Your task to perform on an android device: change the clock style Image 0: 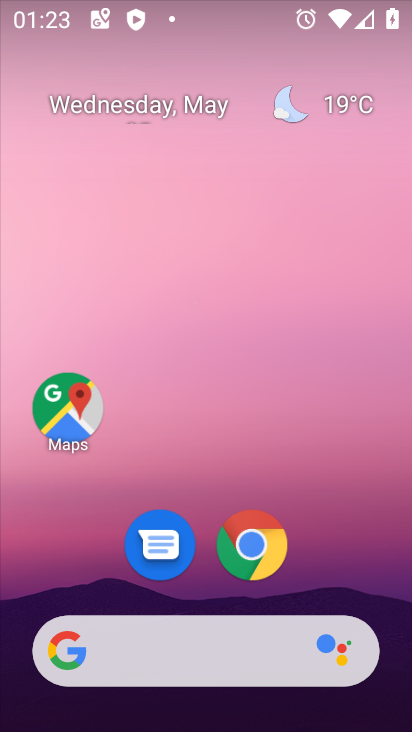
Step 0: drag from (363, 541) to (185, 54)
Your task to perform on an android device: change the clock style Image 1: 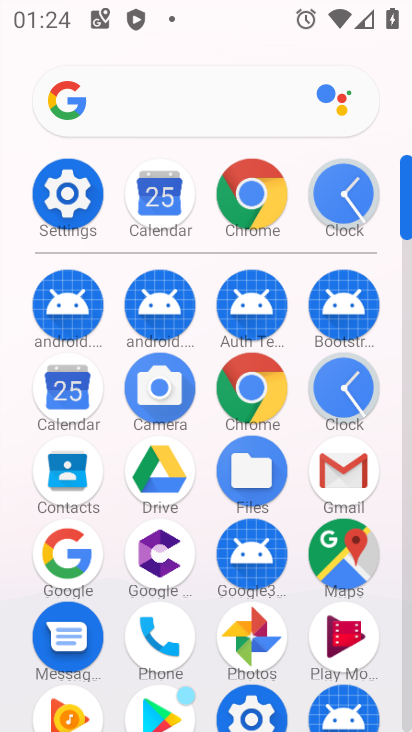
Step 1: click (345, 398)
Your task to perform on an android device: change the clock style Image 2: 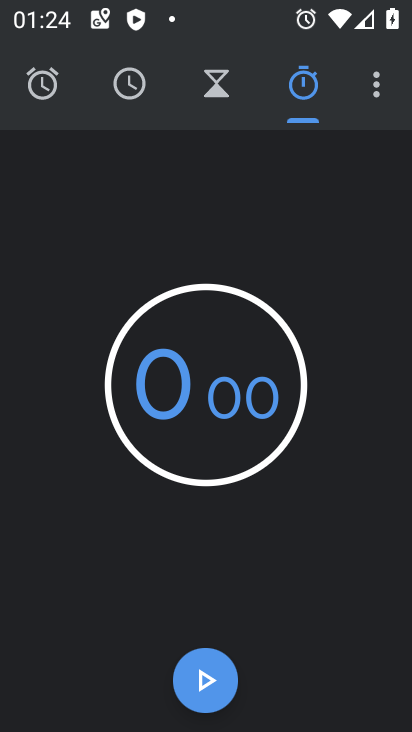
Step 2: click (373, 94)
Your task to perform on an android device: change the clock style Image 3: 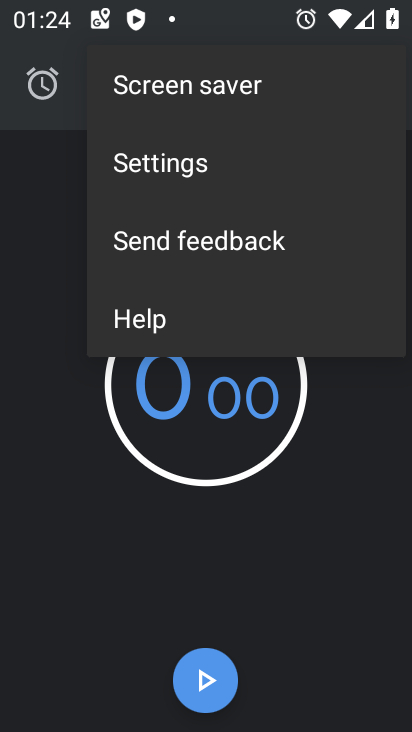
Step 3: click (150, 164)
Your task to perform on an android device: change the clock style Image 4: 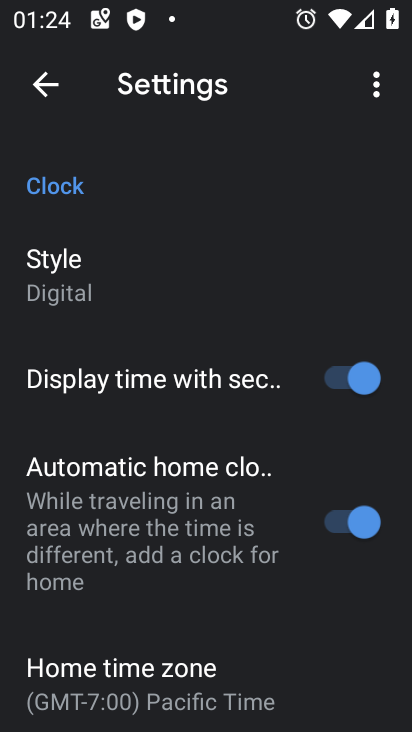
Step 4: click (63, 276)
Your task to perform on an android device: change the clock style Image 5: 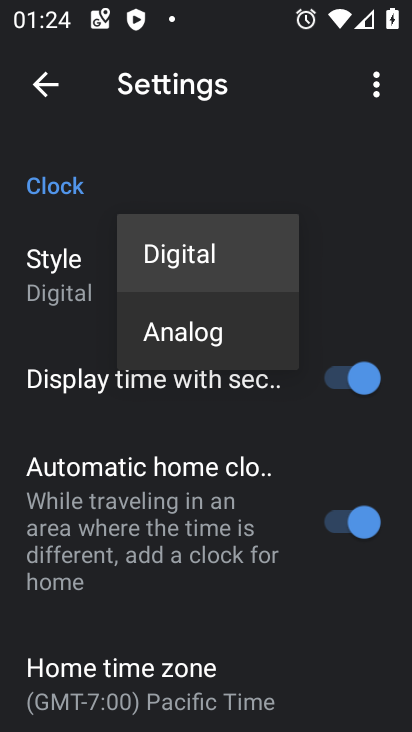
Step 5: click (169, 328)
Your task to perform on an android device: change the clock style Image 6: 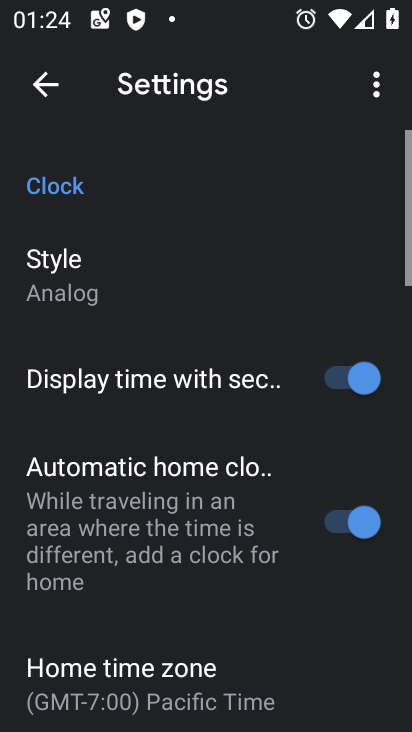
Step 6: task complete